Your task to perform on an android device: check storage Image 0: 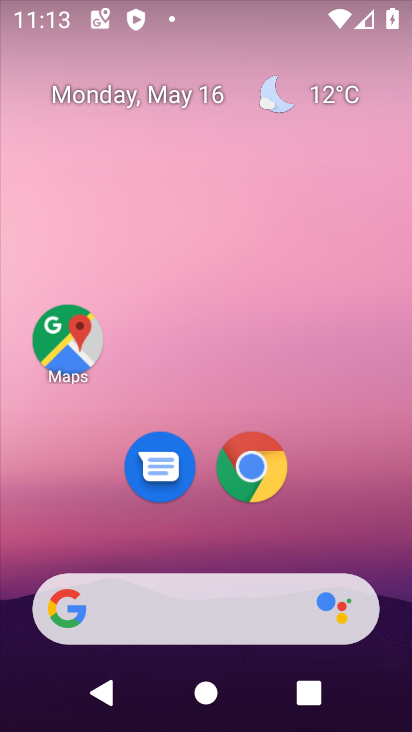
Step 0: drag from (247, 526) to (246, 28)
Your task to perform on an android device: check storage Image 1: 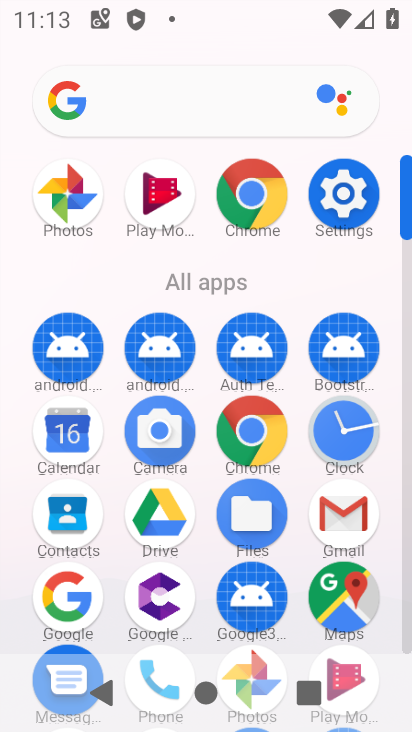
Step 1: click (346, 214)
Your task to perform on an android device: check storage Image 2: 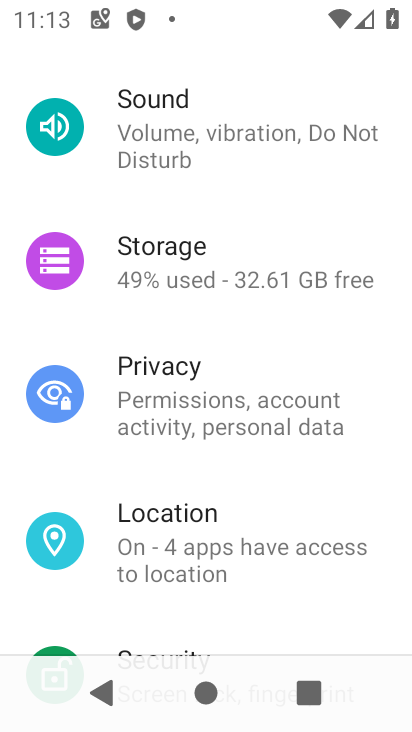
Step 2: click (151, 261)
Your task to perform on an android device: check storage Image 3: 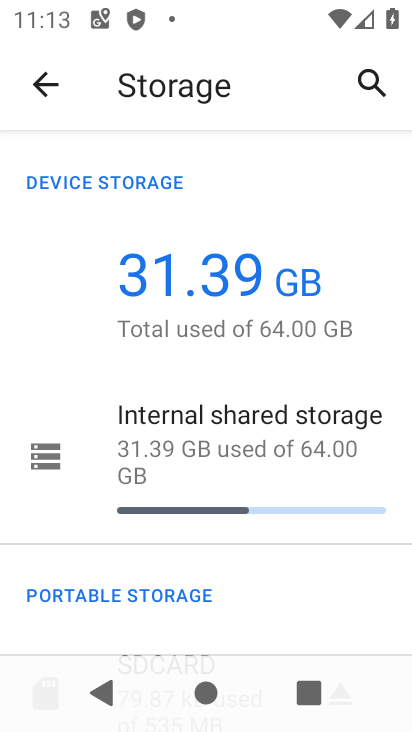
Step 3: click (196, 498)
Your task to perform on an android device: check storage Image 4: 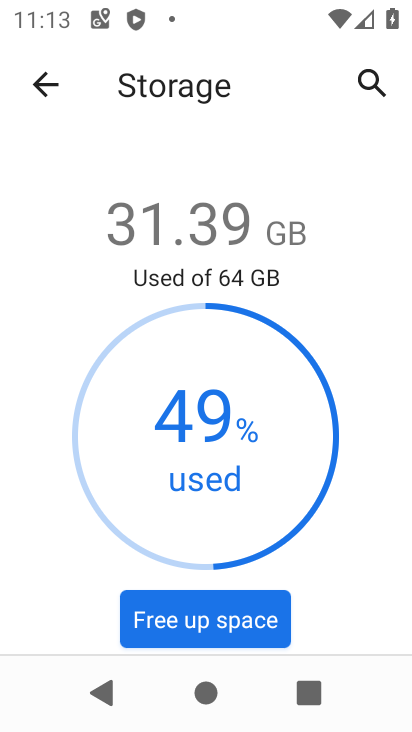
Step 4: task complete